Your task to perform on an android device: Look up the best rated headphones on Amazon. Image 0: 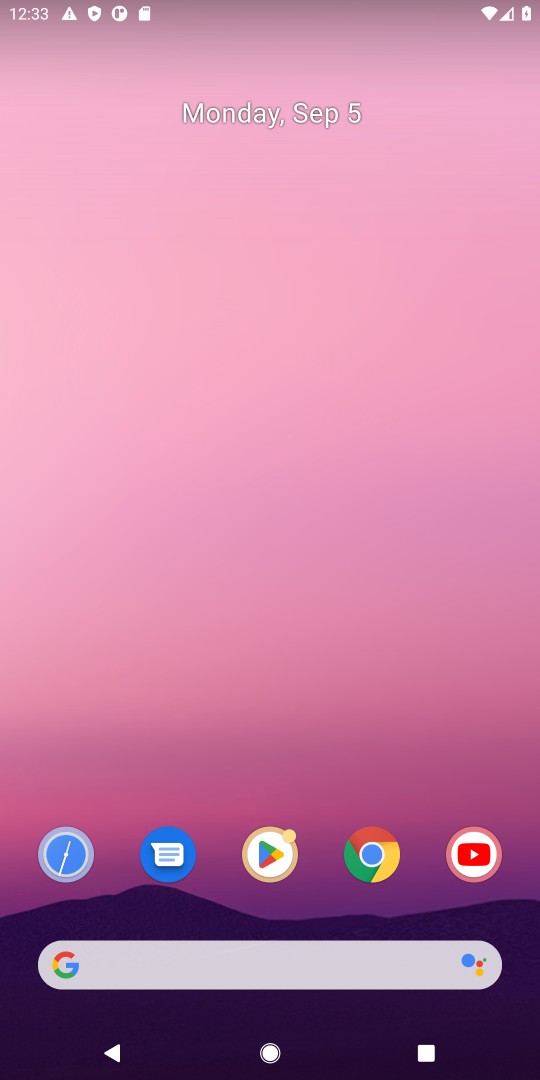
Step 0: press home button
Your task to perform on an android device: Look up the best rated headphones on Amazon. Image 1: 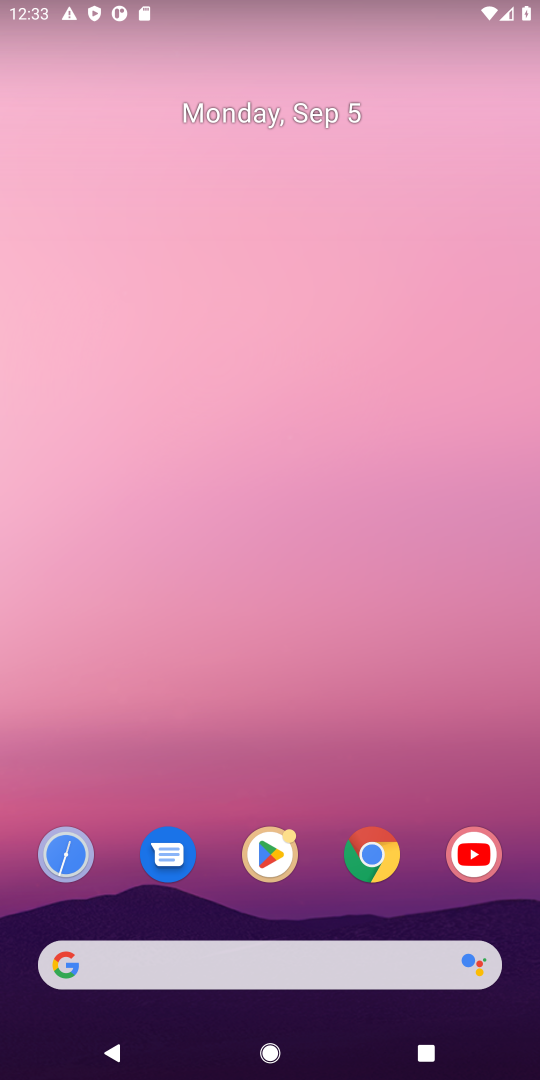
Step 1: click (261, 965)
Your task to perform on an android device: Look up the best rated headphones on Amazon. Image 2: 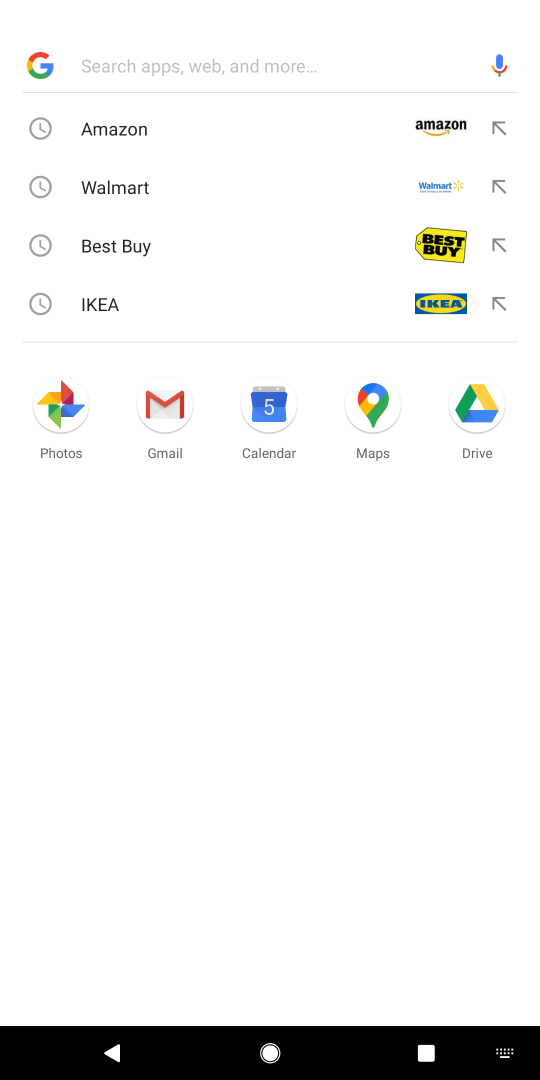
Step 2: press enter
Your task to perform on an android device: Look up the best rated headphones on Amazon. Image 3: 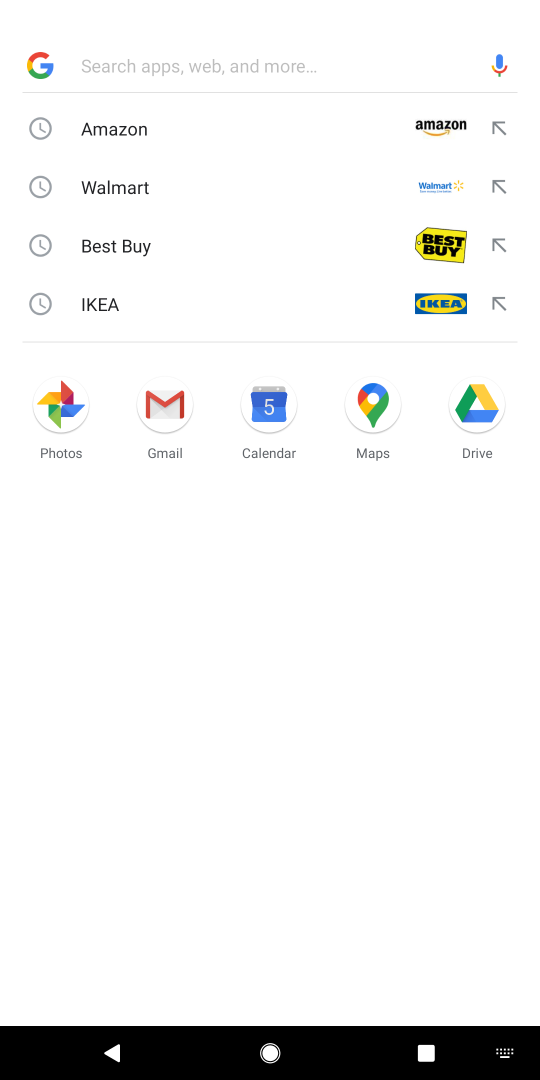
Step 3: type "amazon"
Your task to perform on an android device: Look up the best rated headphones on Amazon. Image 4: 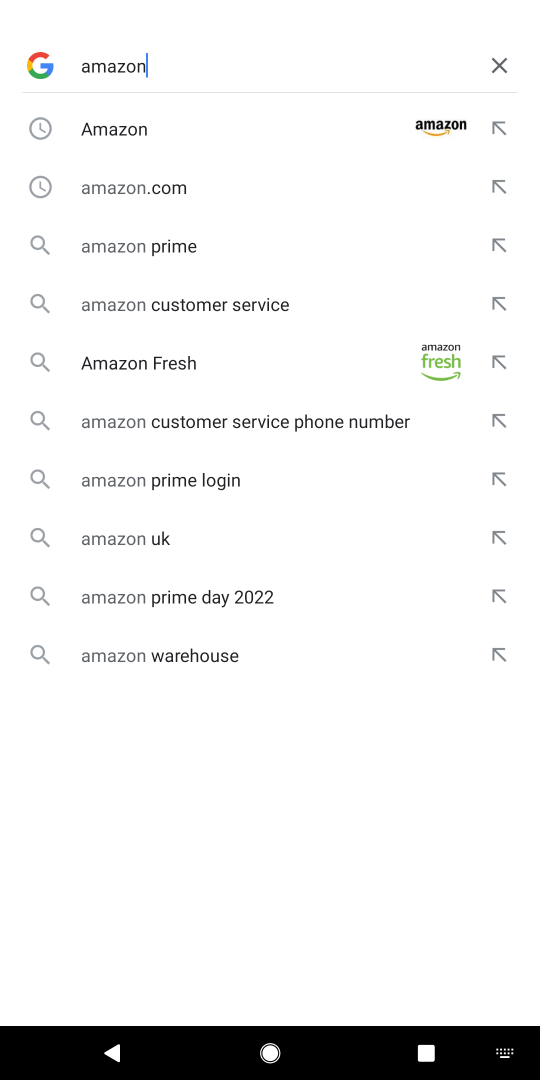
Step 4: click (129, 115)
Your task to perform on an android device: Look up the best rated headphones on Amazon. Image 5: 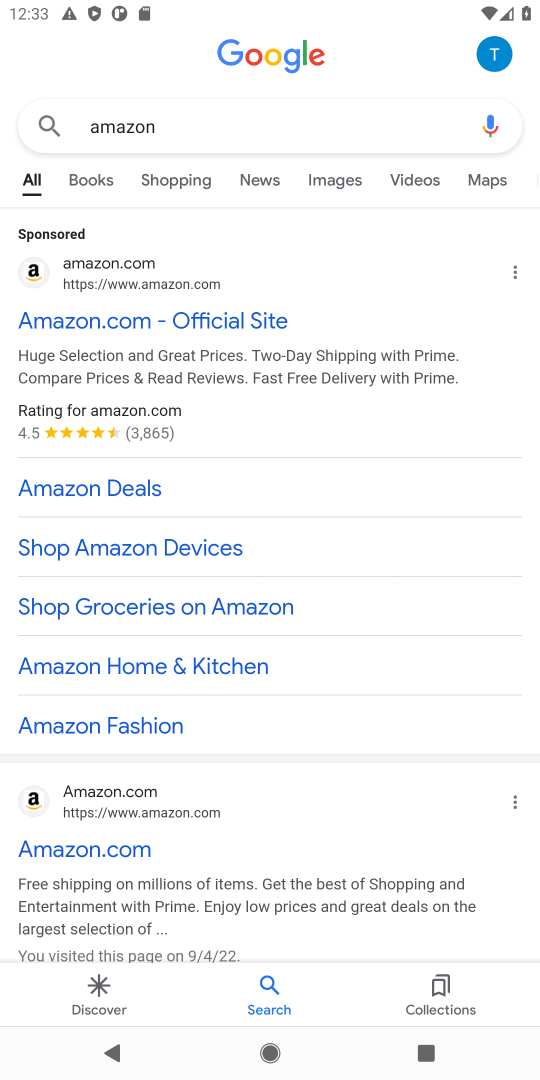
Step 5: click (133, 318)
Your task to perform on an android device: Look up the best rated headphones on Amazon. Image 6: 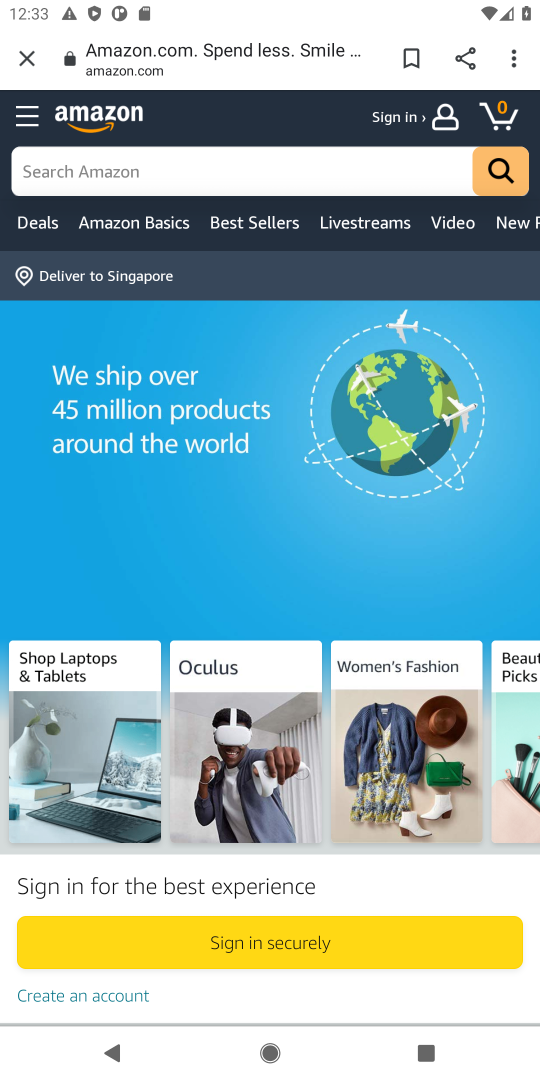
Step 6: click (213, 156)
Your task to perform on an android device: Look up the best rated headphones on Amazon. Image 7: 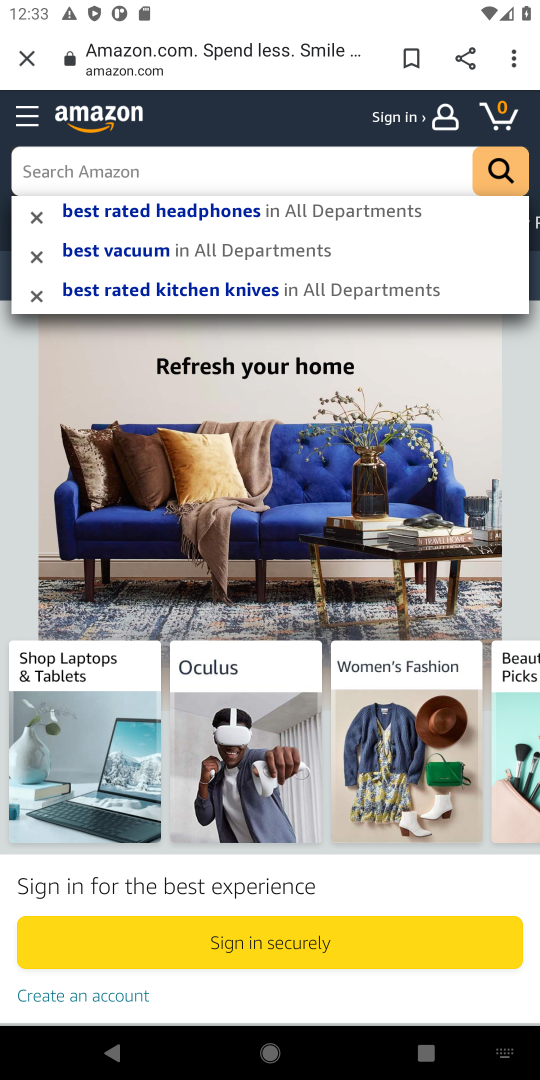
Step 7: click (232, 212)
Your task to perform on an android device: Look up the best rated headphones on Amazon. Image 8: 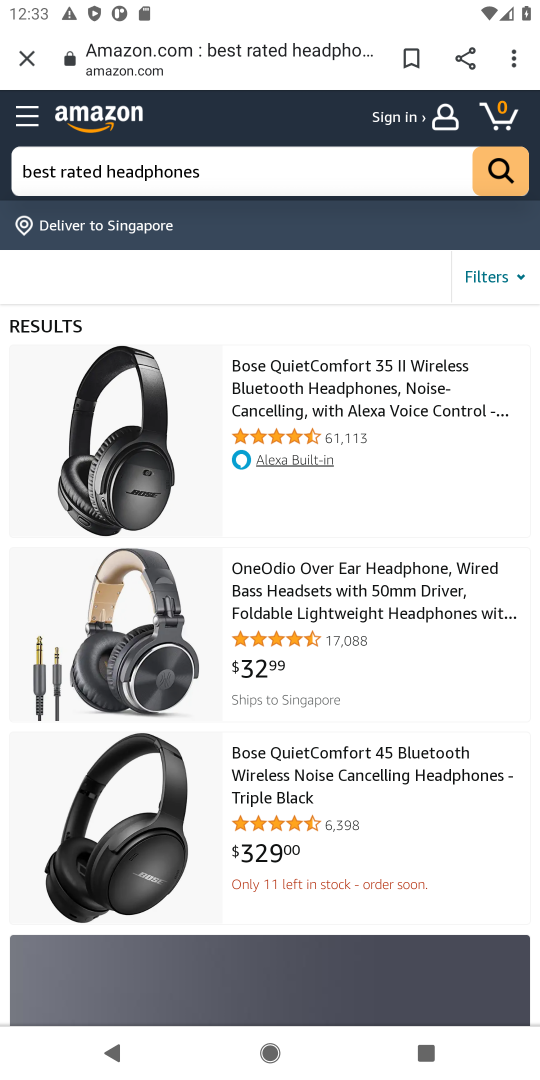
Step 8: task complete